Your task to perform on an android device: Go to settings Image 0: 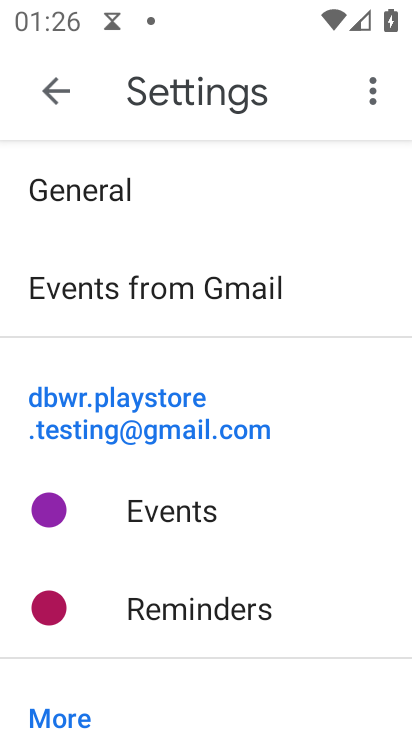
Step 0: drag from (185, 557) to (250, 147)
Your task to perform on an android device: Go to settings Image 1: 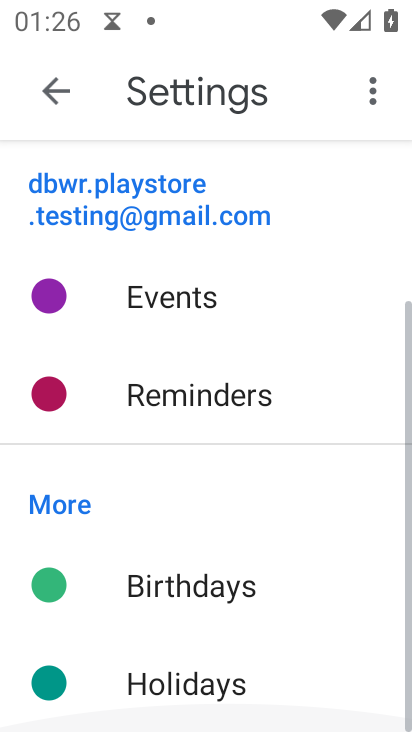
Step 1: drag from (229, 491) to (274, 259)
Your task to perform on an android device: Go to settings Image 2: 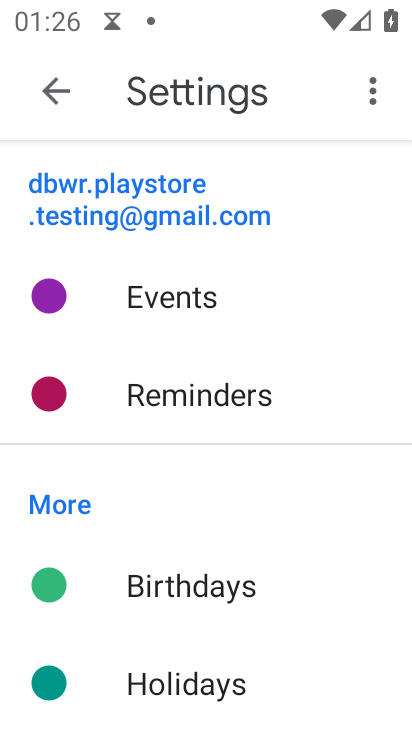
Step 2: click (53, 103)
Your task to perform on an android device: Go to settings Image 3: 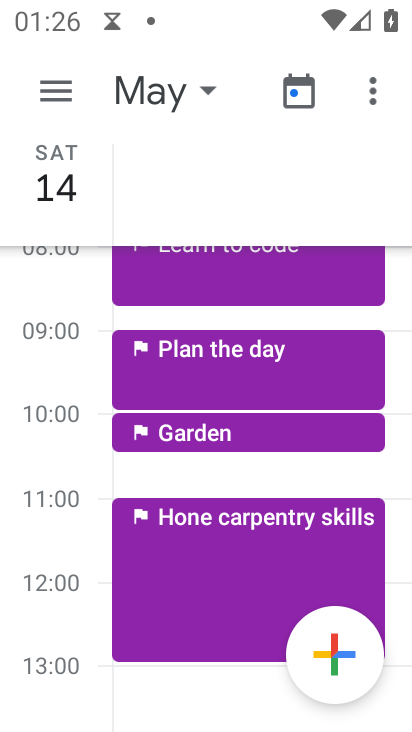
Step 3: press home button
Your task to perform on an android device: Go to settings Image 4: 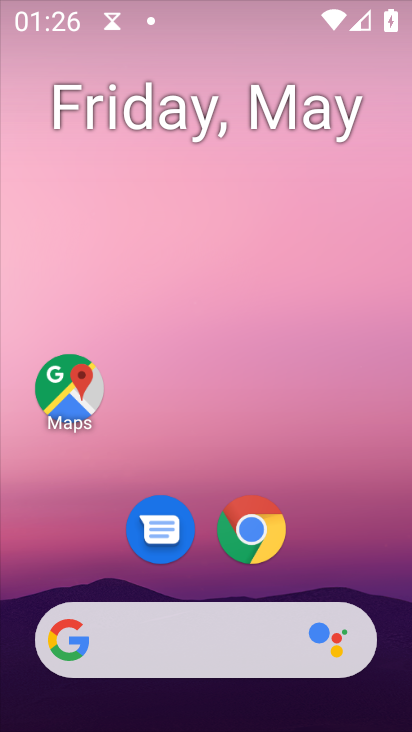
Step 4: drag from (241, 422) to (249, 255)
Your task to perform on an android device: Go to settings Image 5: 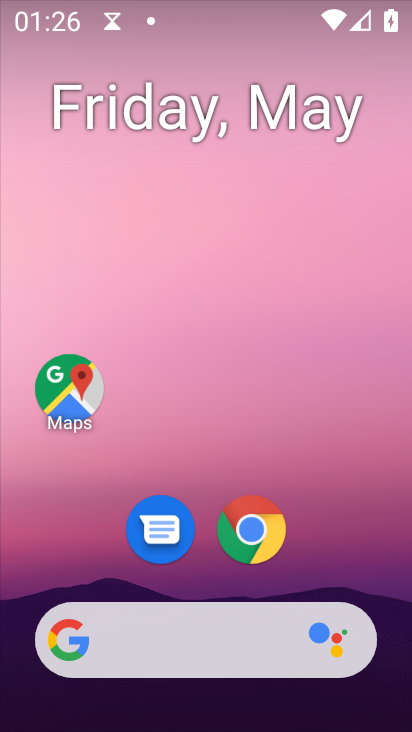
Step 5: drag from (321, 533) to (309, 331)
Your task to perform on an android device: Go to settings Image 6: 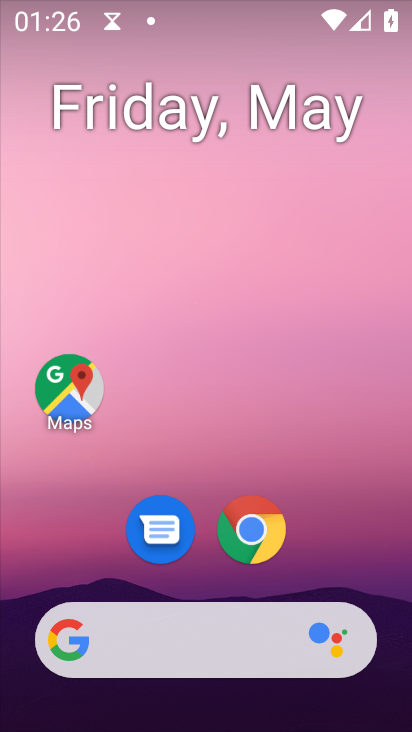
Step 6: drag from (206, 543) to (245, 271)
Your task to perform on an android device: Go to settings Image 7: 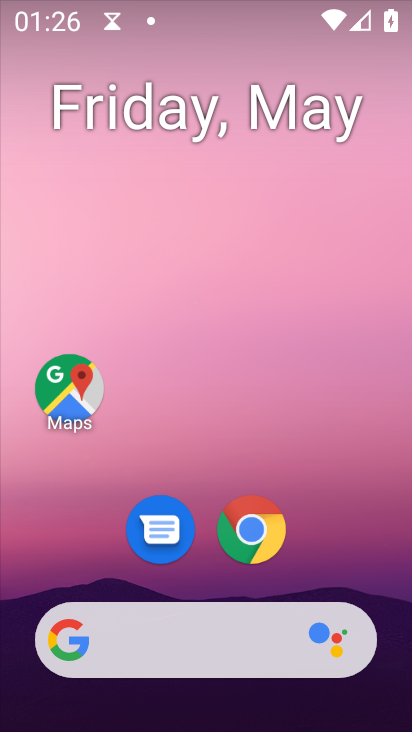
Step 7: drag from (180, 534) to (225, 262)
Your task to perform on an android device: Go to settings Image 8: 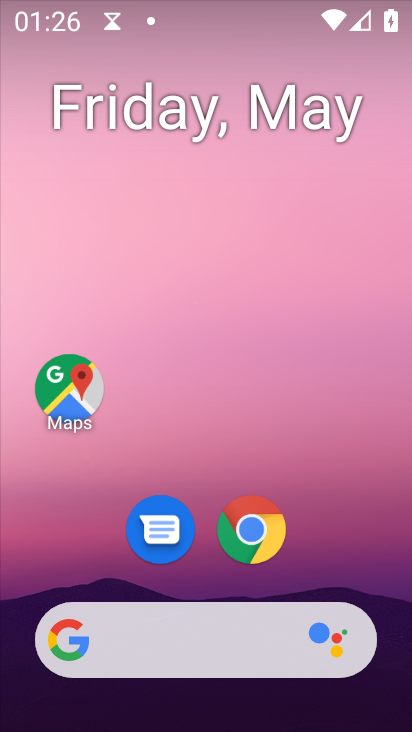
Step 8: drag from (152, 520) to (212, 194)
Your task to perform on an android device: Go to settings Image 9: 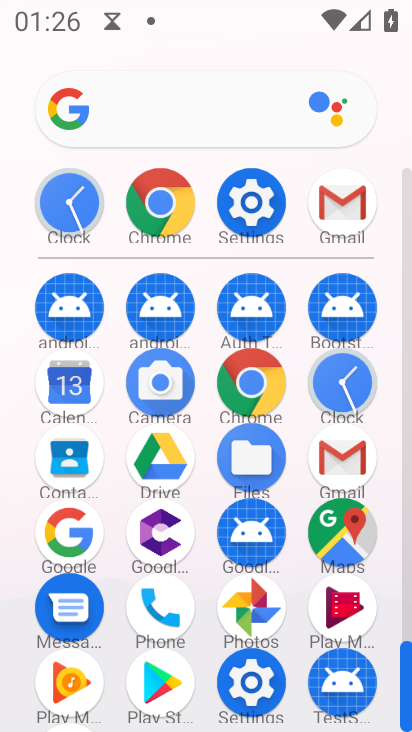
Step 9: click (248, 188)
Your task to perform on an android device: Go to settings Image 10: 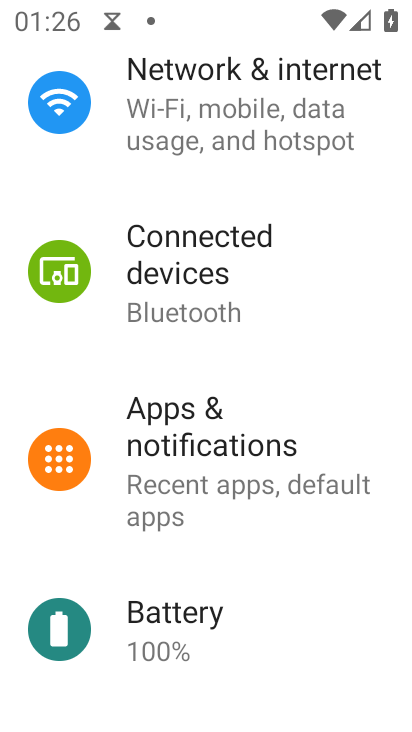
Step 10: task complete